Your task to perform on an android device: turn on javascript in the chrome app Image 0: 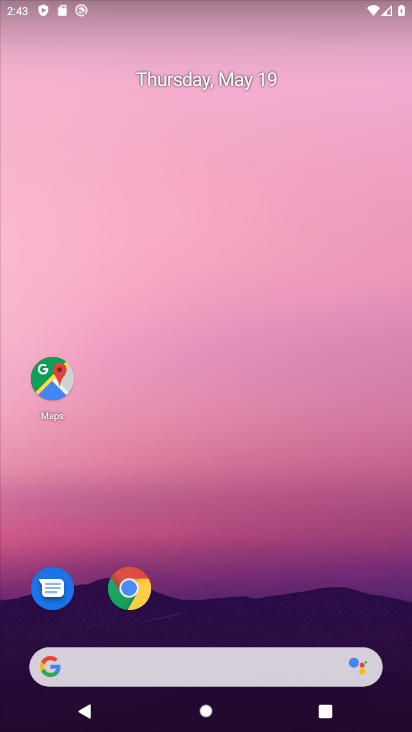
Step 0: drag from (340, 533) to (325, 152)
Your task to perform on an android device: turn on javascript in the chrome app Image 1: 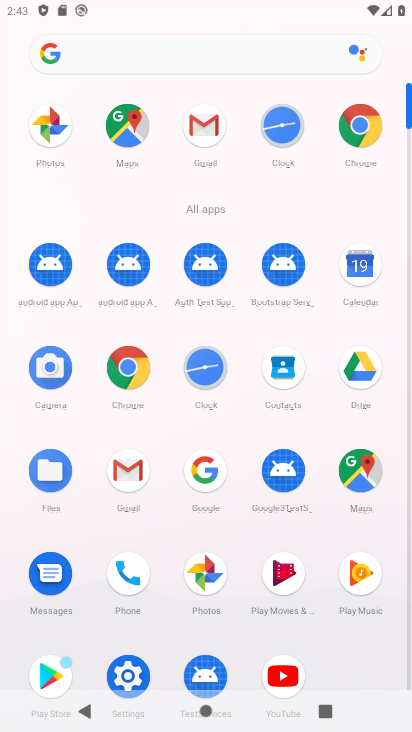
Step 1: click (142, 373)
Your task to perform on an android device: turn on javascript in the chrome app Image 2: 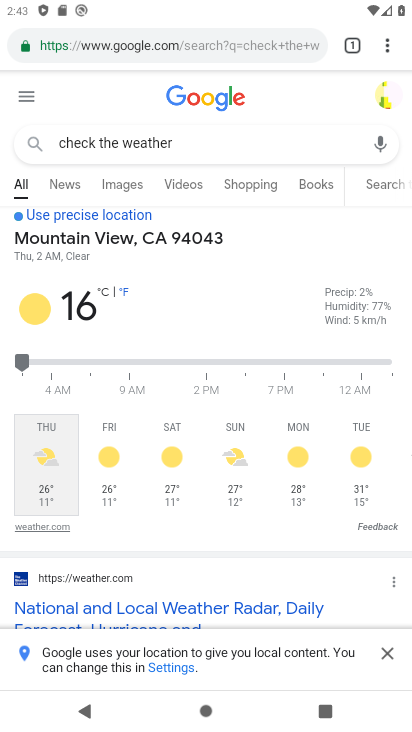
Step 2: drag from (391, 52) to (322, 501)
Your task to perform on an android device: turn on javascript in the chrome app Image 3: 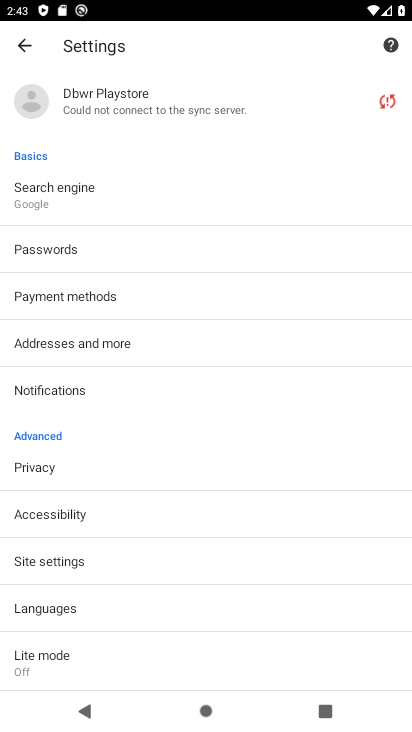
Step 3: drag from (93, 601) to (158, 352)
Your task to perform on an android device: turn on javascript in the chrome app Image 4: 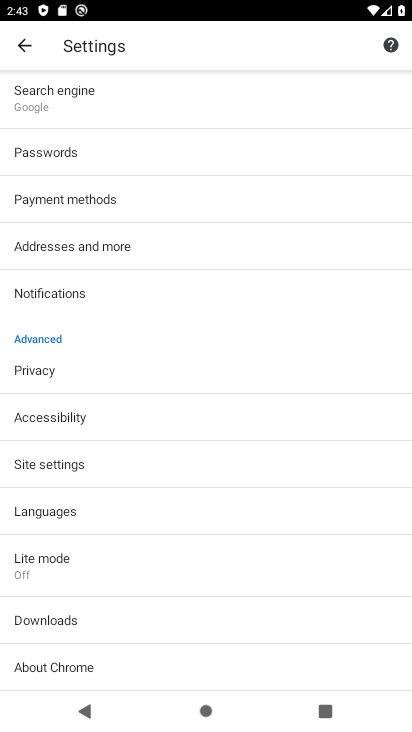
Step 4: click (137, 468)
Your task to perform on an android device: turn on javascript in the chrome app Image 5: 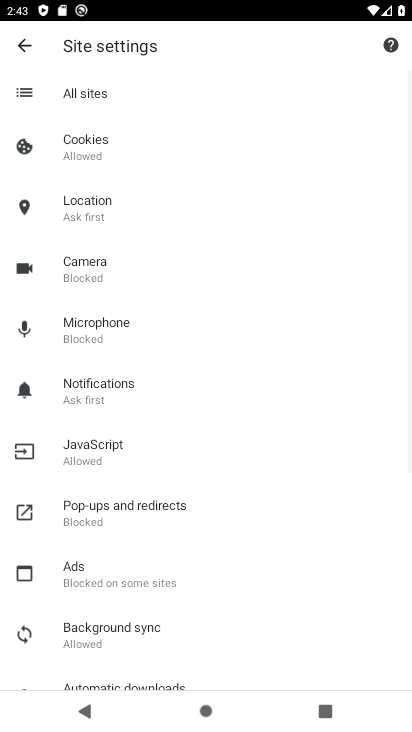
Step 5: click (137, 473)
Your task to perform on an android device: turn on javascript in the chrome app Image 6: 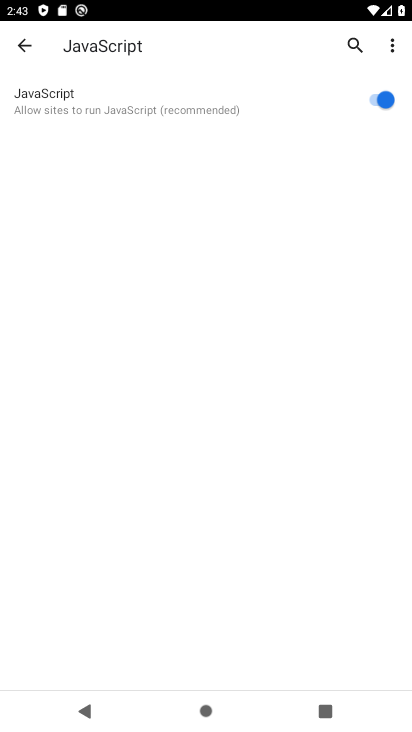
Step 6: task complete